Your task to perform on an android device: Open Google Chrome and click the shortcut for Amazon.com Image 0: 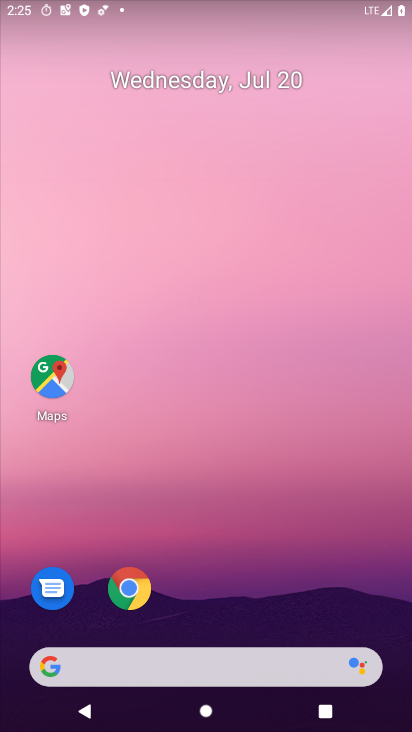
Step 0: drag from (299, 373) to (240, 2)
Your task to perform on an android device: Open Google Chrome and click the shortcut for Amazon.com Image 1: 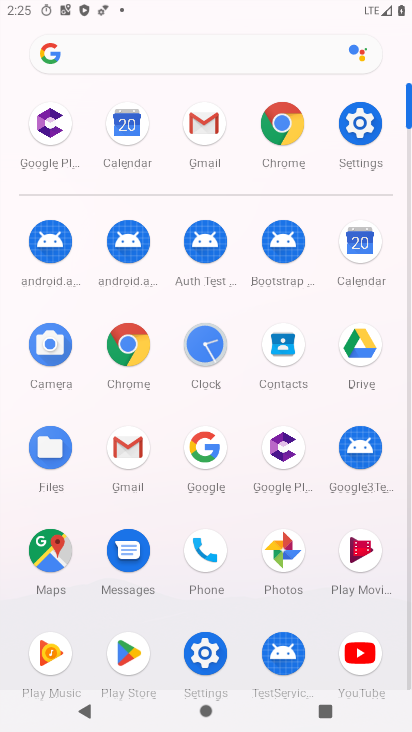
Step 1: click (279, 119)
Your task to perform on an android device: Open Google Chrome and click the shortcut for Amazon.com Image 2: 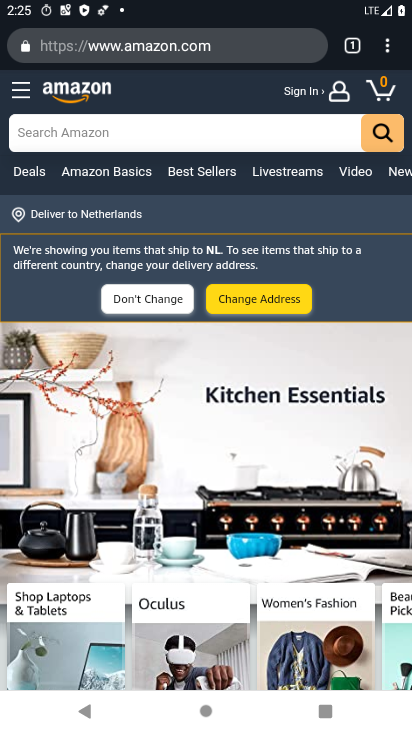
Step 2: drag from (394, 39) to (302, 467)
Your task to perform on an android device: Open Google Chrome and click the shortcut for Amazon.com Image 3: 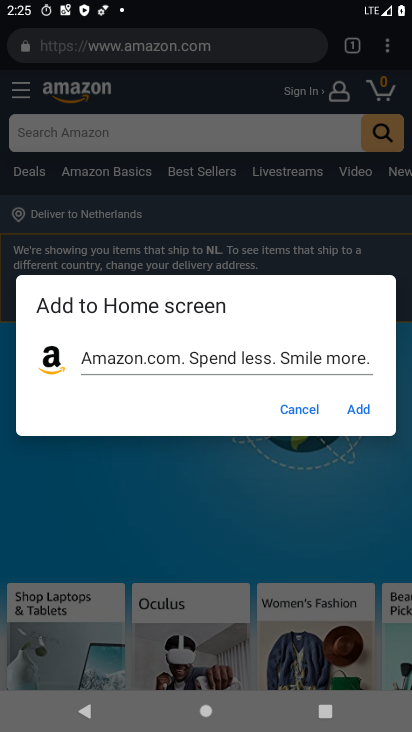
Step 3: click (359, 408)
Your task to perform on an android device: Open Google Chrome and click the shortcut for Amazon.com Image 4: 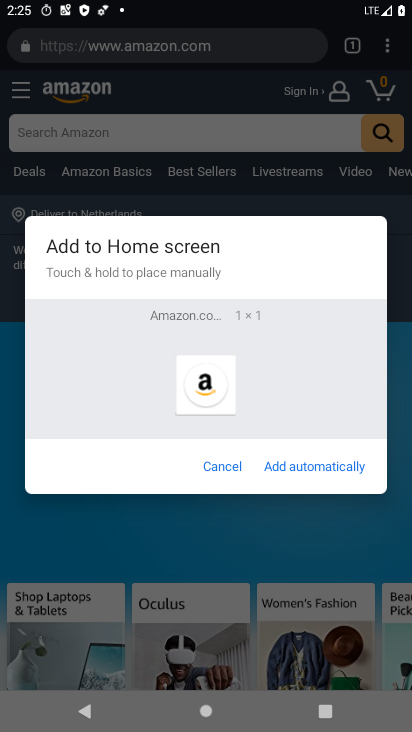
Step 4: click (332, 466)
Your task to perform on an android device: Open Google Chrome and click the shortcut for Amazon.com Image 5: 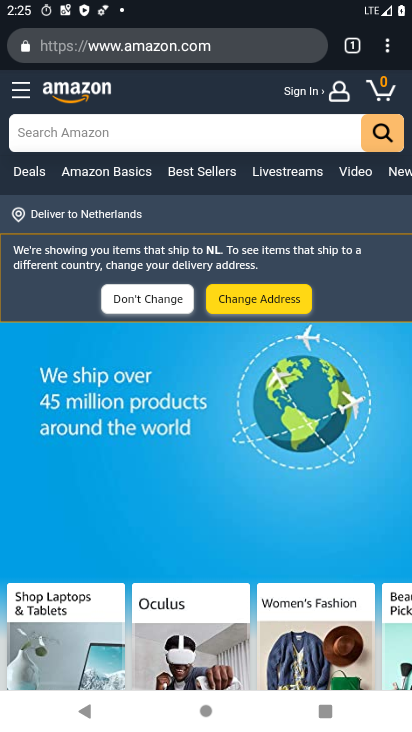
Step 5: task complete